Your task to perform on an android device: Show me productivity apps on the Play Store Image 0: 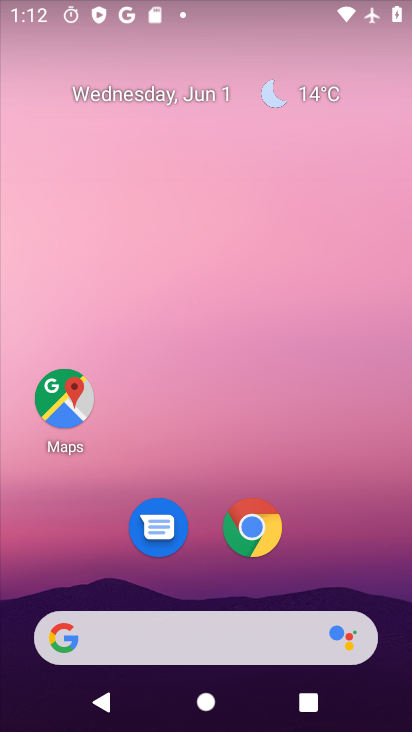
Step 0: drag from (181, 672) to (267, 116)
Your task to perform on an android device: Show me productivity apps on the Play Store Image 1: 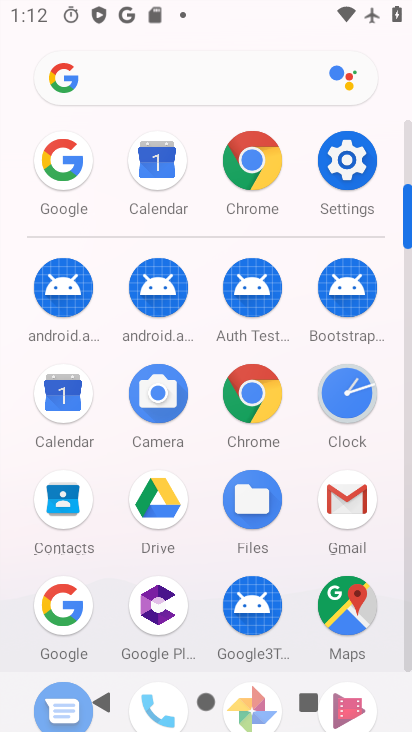
Step 1: drag from (226, 500) to (293, 232)
Your task to perform on an android device: Show me productivity apps on the Play Store Image 2: 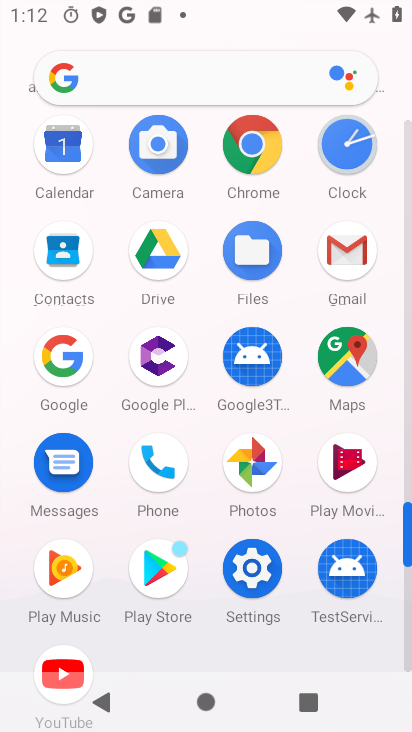
Step 2: click (157, 589)
Your task to perform on an android device: Show me productivity apps on the Play Store Image 3: 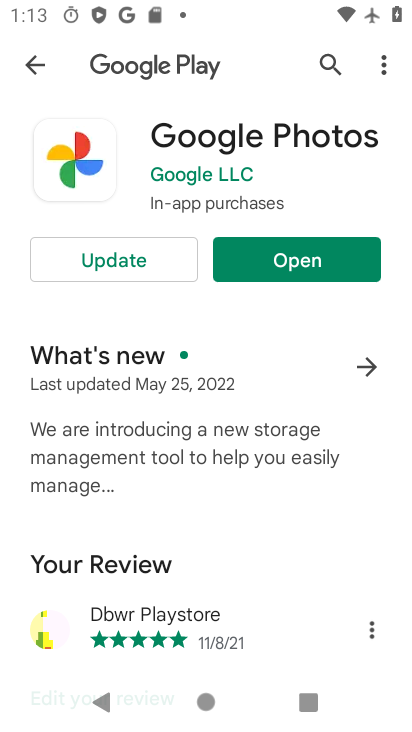
Step 3: click (34, 59)
Your task to perform on an android device: Show me productivity apps on the Play Store Image 4: 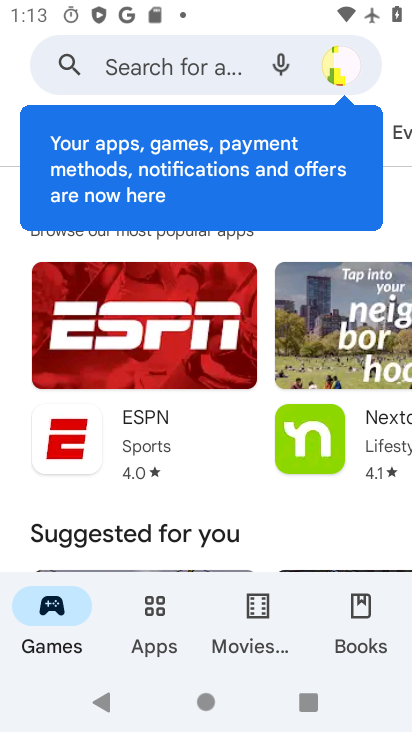
Step 4: click (247, 63)
Your task to perform on an android device: Show me productivity apps on the Play Store Image 5: 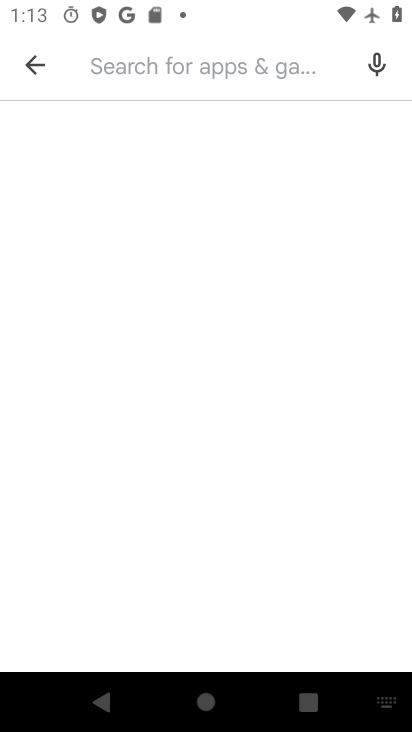
Step 5: type "productivity aaps"
Your task to perform on an android device: Show me productivity apps on the Play Store Image 6: 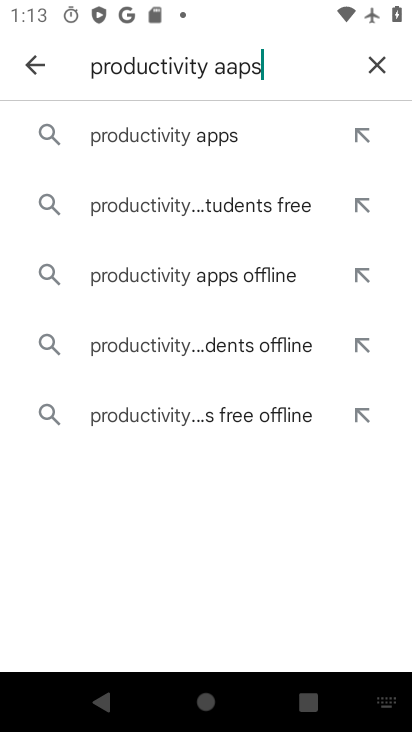
Step 6: click (209, 138)
Your task to perform on an android device: Show me productivity apps on the Play Store Image 7: 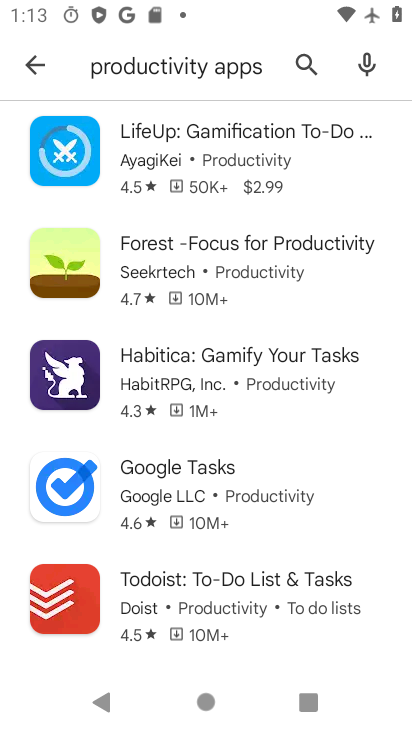
Step 7: task complete